Your task to perform on an android device: open device folders in google photos Image 0: 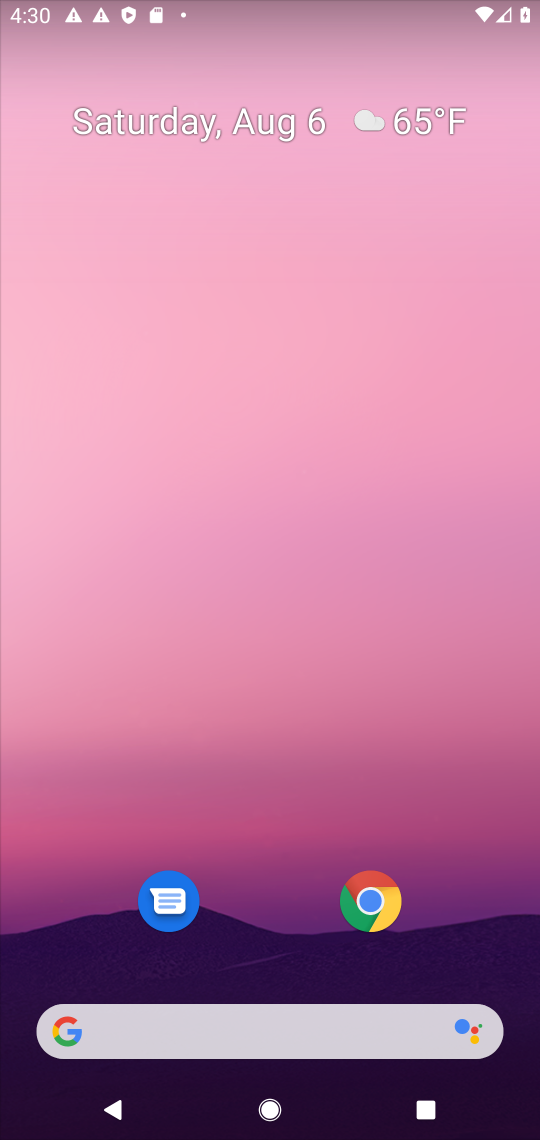
Step 0: drag from (287, 955) to (261, 502)
Your task to perform on an android device: open device folders in google photos Image 1: 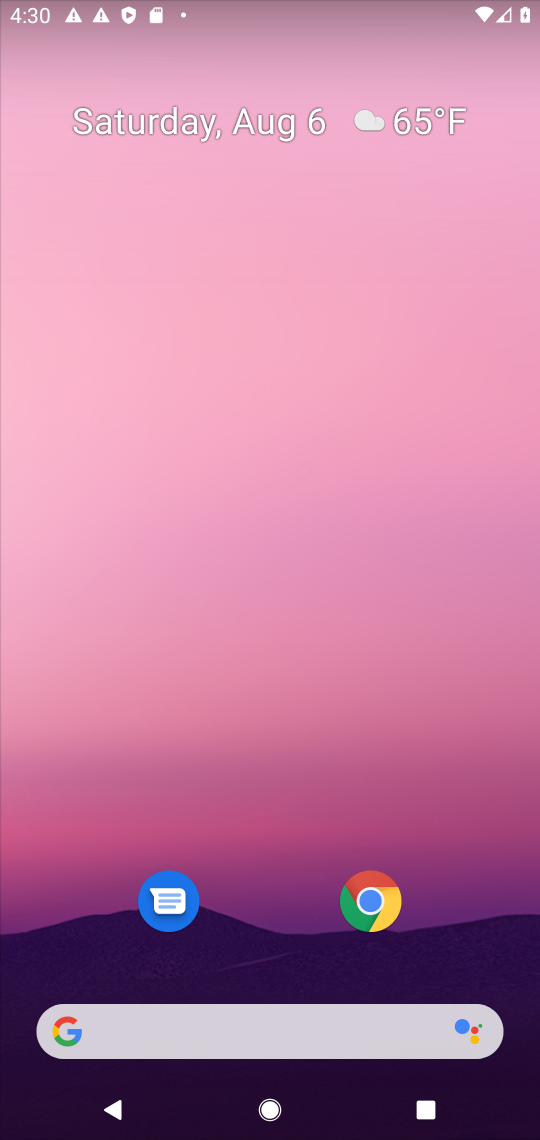
Step 1: drag from (236, 819) to (137, 5)
Your task to perform on an android device: open device folders in google photos Image 2: 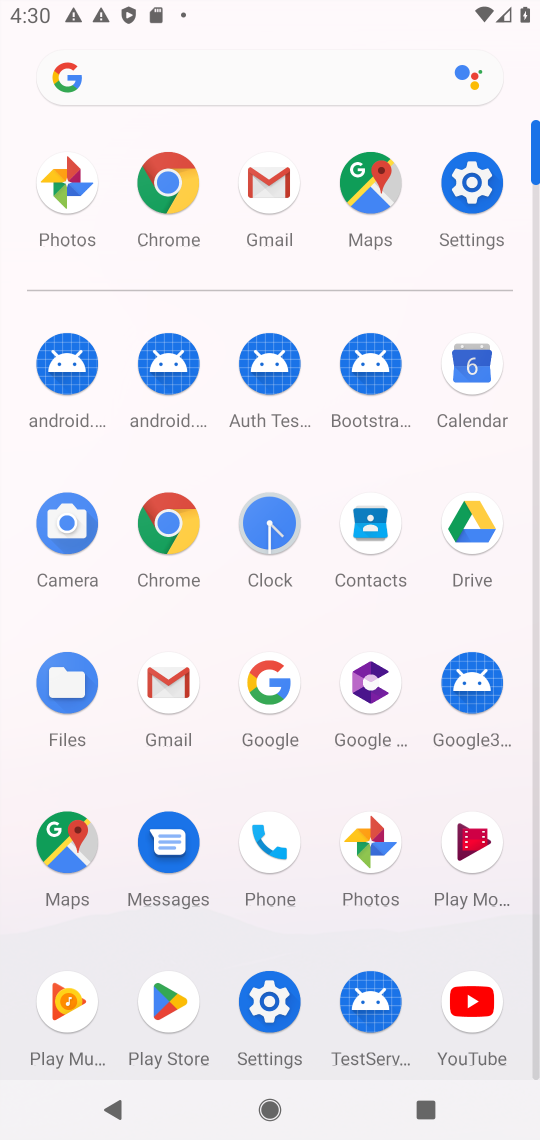
Step 2: click (347, 823)
Your task to perform on an android device: open device folders in google photos Image 3: 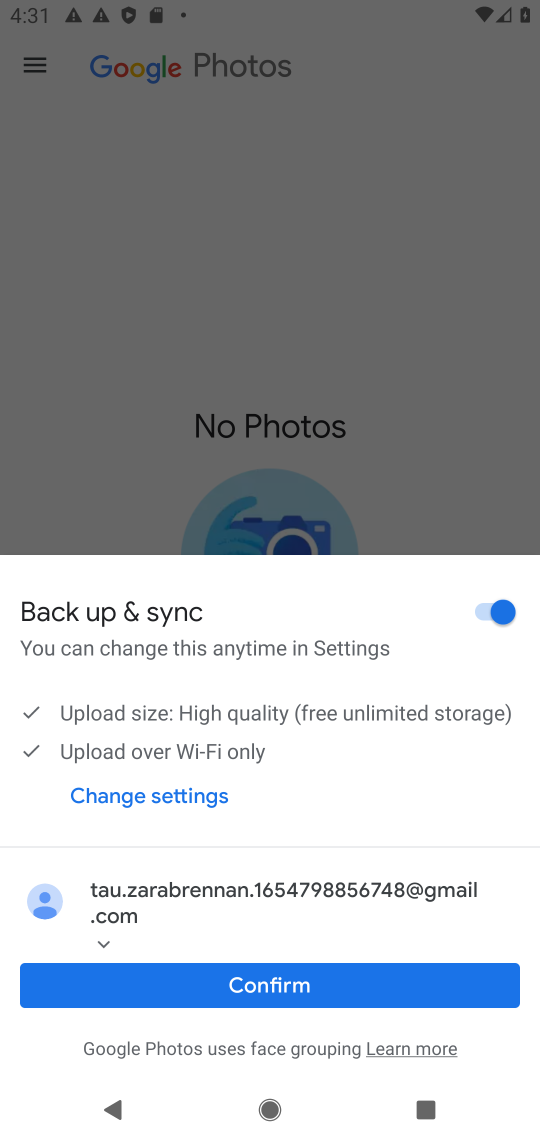
Step 3: click (221, 977)
Your task to perform on an android device: open device folders in google photos Image 4: 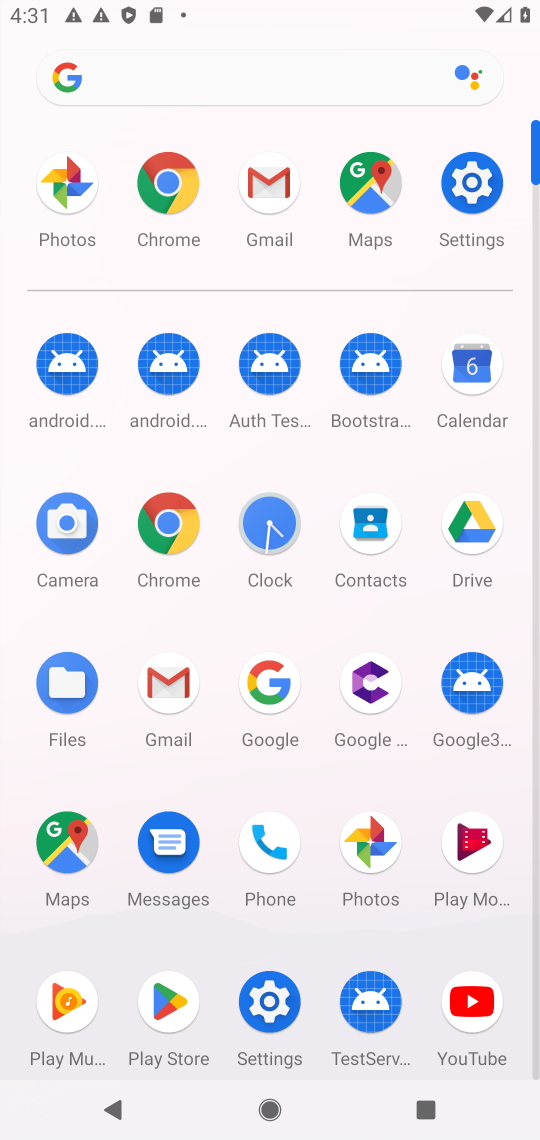
Step 4: click (381, 871)
Your task to perform on an android device: open device folders in google photos Image 5: 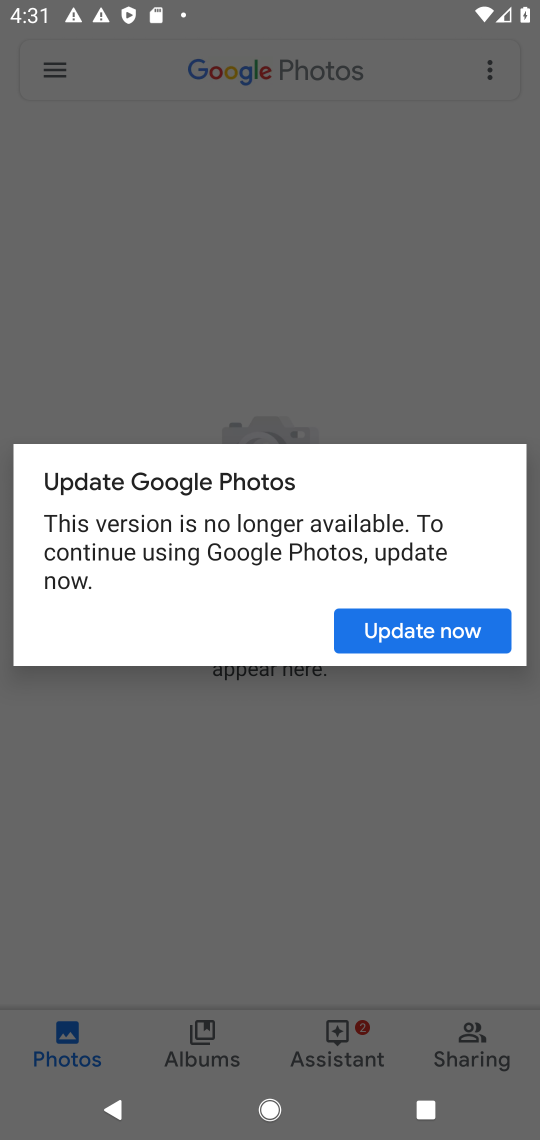
Step 5: click (416, 642)
Your task to perform on an android device: open device folders in google photos Image 6: 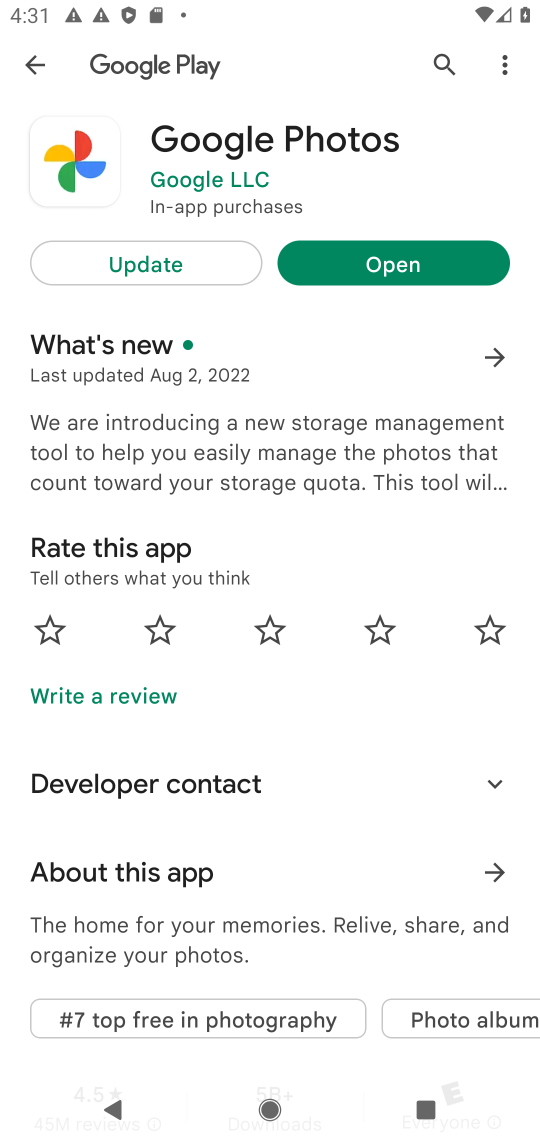
Step 6: click (214, 259)
Your task to perform on an android device: open device folders in google photos Image 7: 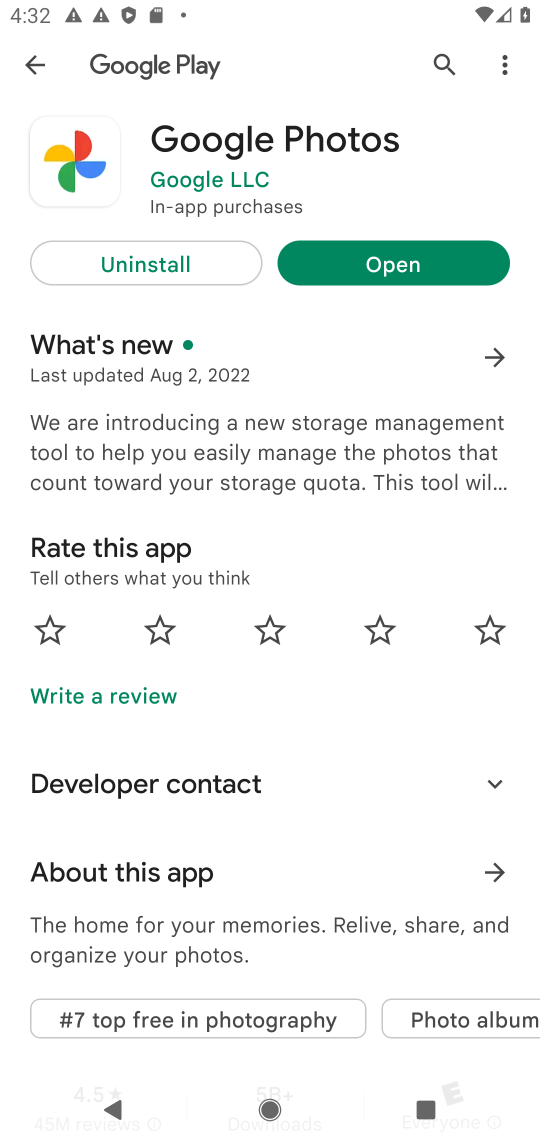
Step 7: click (407, 273)
Your task to perform on an android device: open device folders in google photos Image 8: 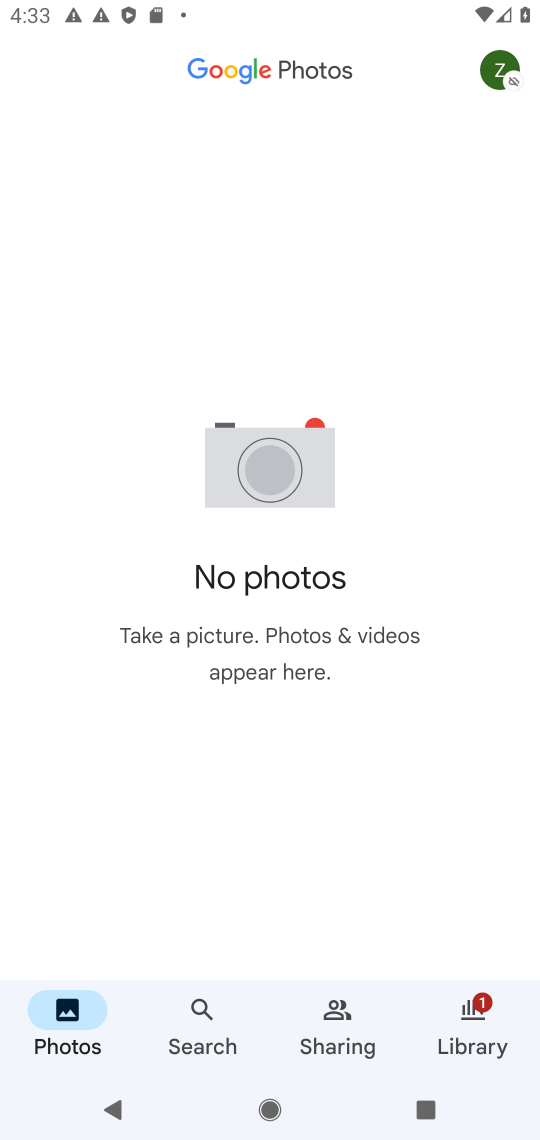
Step 8: task complete